Your task to perform on an android device: turn notification dots on Image 0: 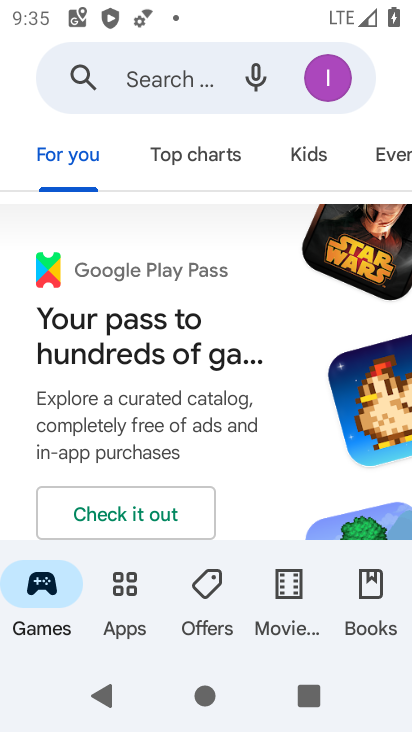
Step 0: press home button
Your task to perform on an android device: turn notification dots on Image 1: 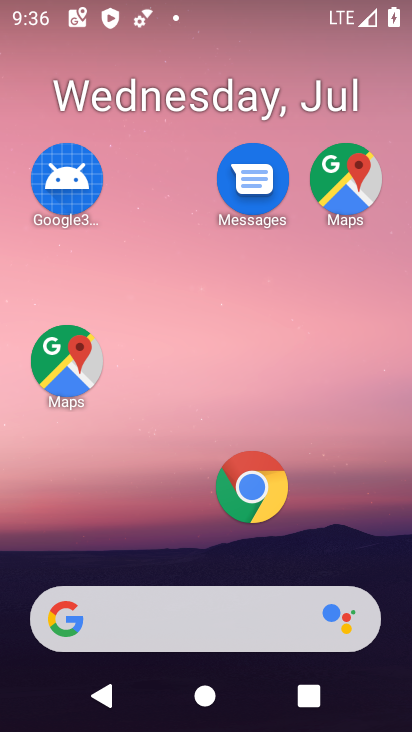
Step 1: drag from (217, 579) to (141, 226)
Your task to perform on an android device: turn notification dots on Image 2: 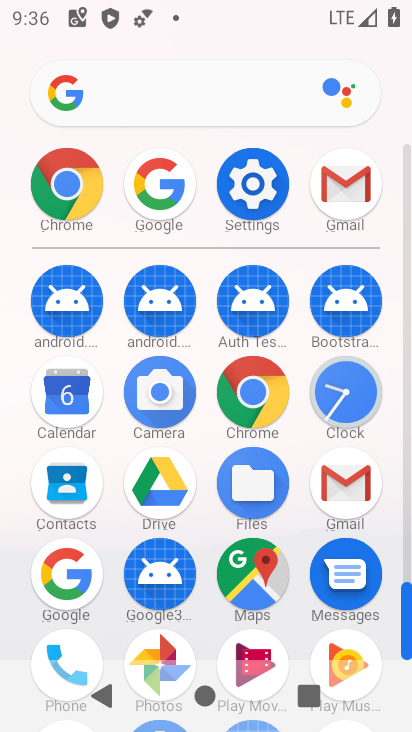
Step 2: click (265, 205)
Your task to perform on an android device: turn notification dots on Image 3: 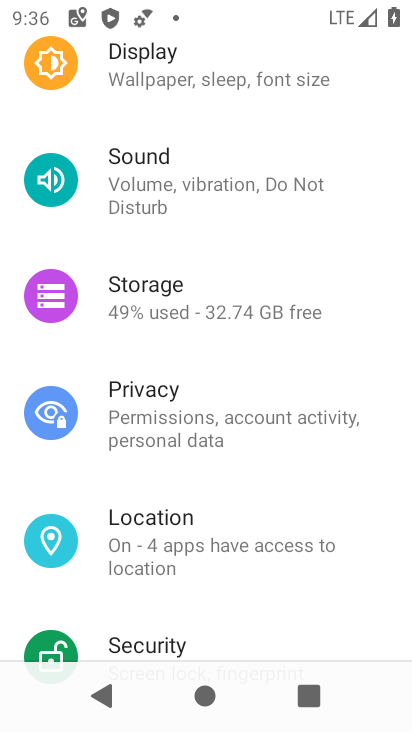
Step 3: drag from (297, 314) to (285, 521)
Your task to perform on an android device: turn notification dots on Image 4: 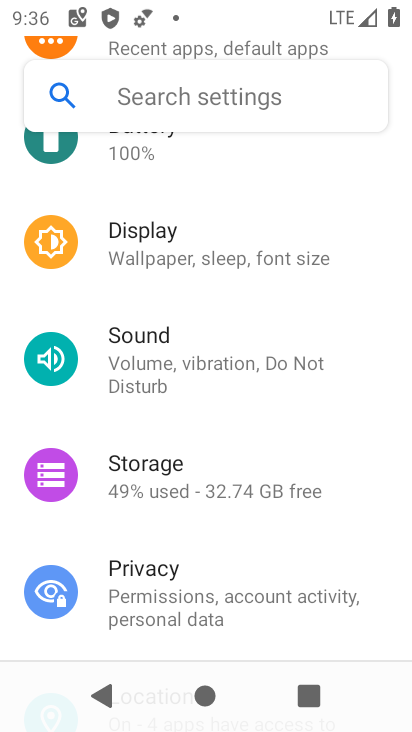
Step 4: drag from (229, 268) to (246, 611)
Your task to perform on an android device: turn notification dots on Image 5: 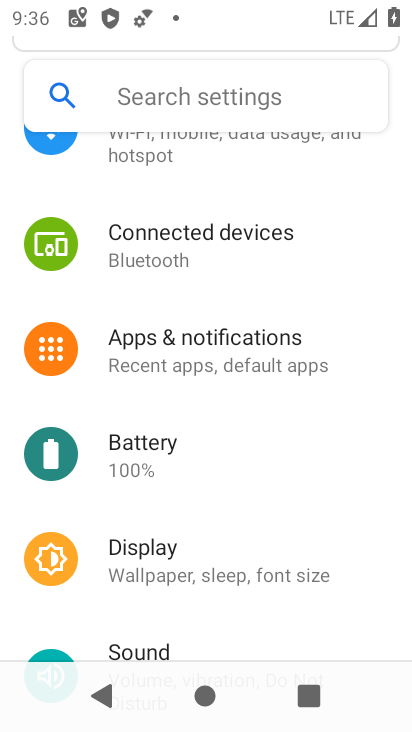
Step 5: click (155, 324)
Your task to perform on an android device: turn notification dots on Image 6: 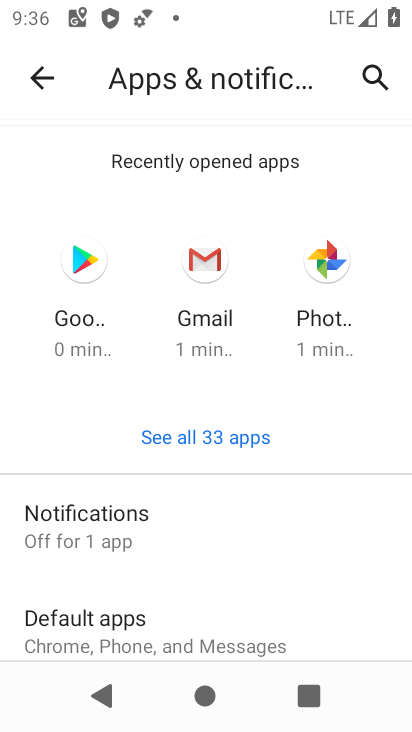
Step 6: click (106, 533)
Your task to perform on an android device: turn notification dots on Image 7: 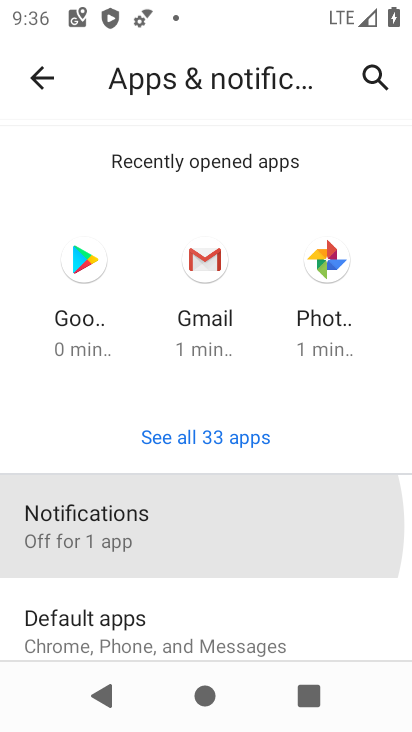
Step 7: click (106, 533)
Your task to perform on an android device: turn notification dots on Image 8: 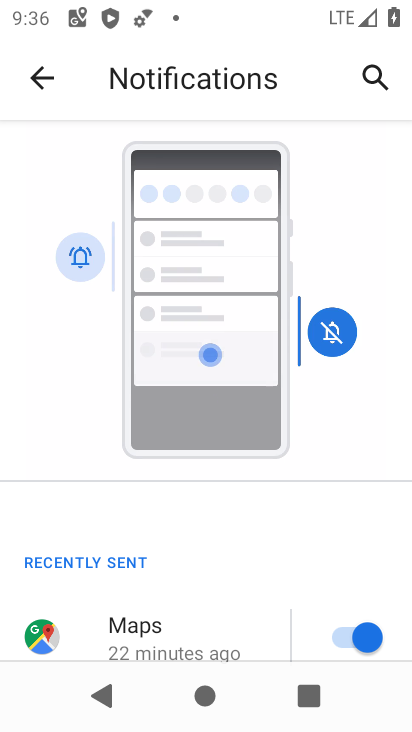
Step 8: drag from (106, 533) to (0, 57)
Your task to perform on an android device: turn notification dots on Image 9: 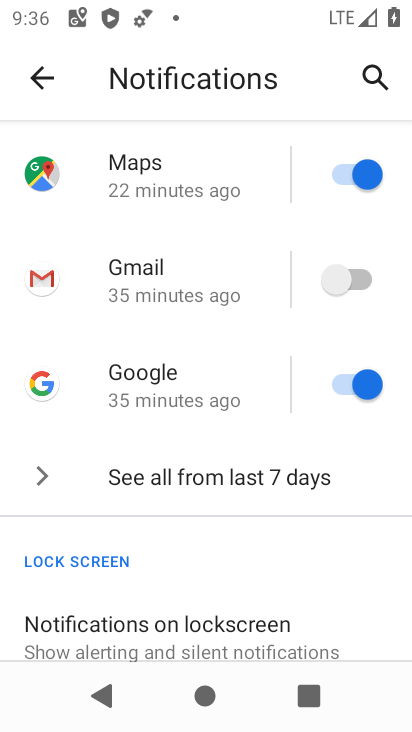
Step 9: drag from (189, 609) to (175, 394)
Your task to perform on an android device: turn notification dots on Image 10: 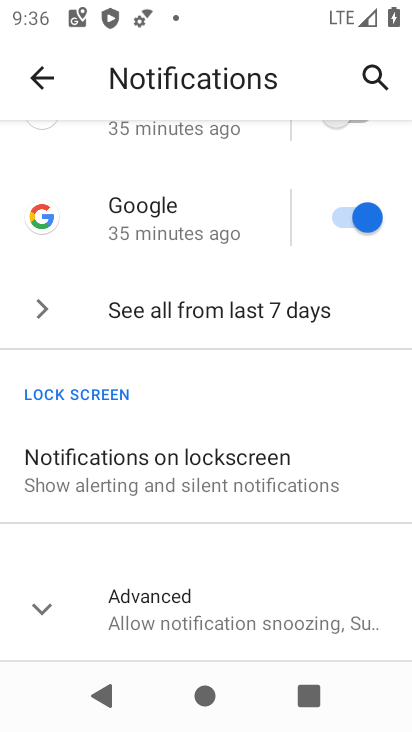
Step 10: click (142, 590)
Your task to perform on an android device: turn notification dots on Image 11: 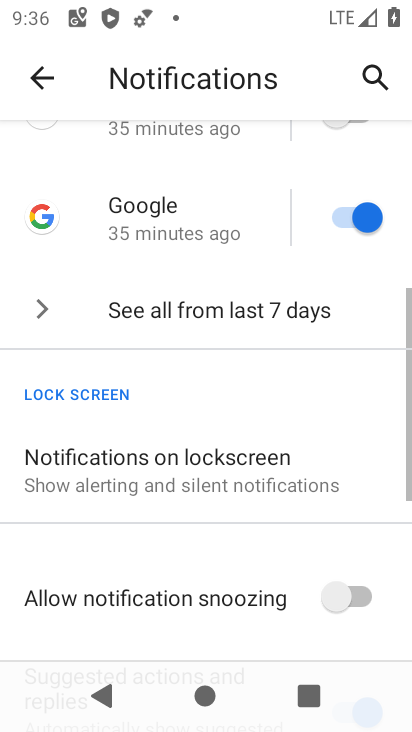
Step 11: drag from (142, 590) to (27, 183)
Your task to perform on an android device: turn notification dots on Image 12: 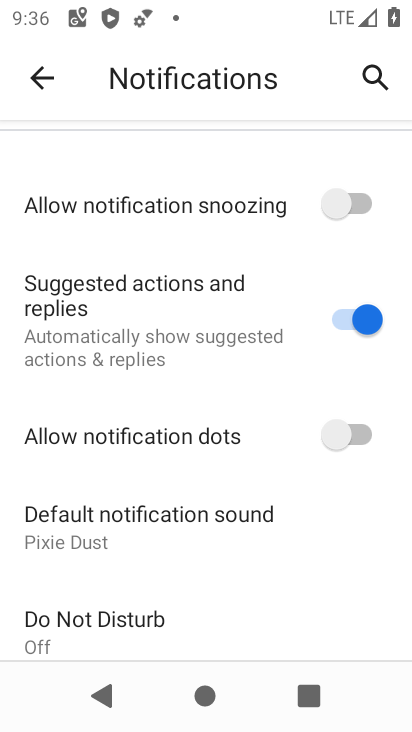
Step 12: click (337, 447)
Your task to perform on an android device: turn notification dots on Image 13: 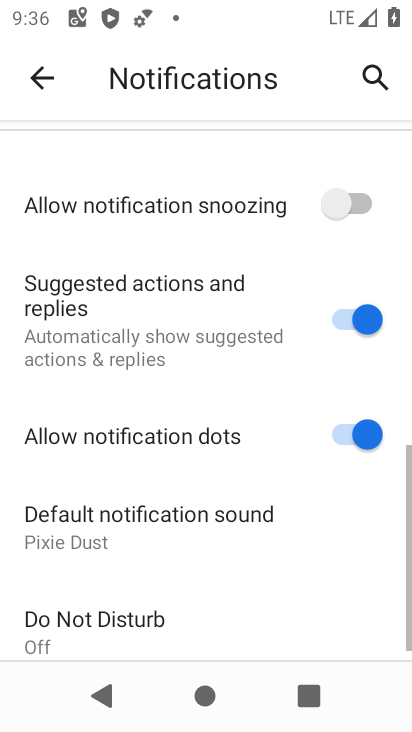
Step 13: task complete